Your task to perform on an android device: Search for custom wallets on Etsy. Image 0: 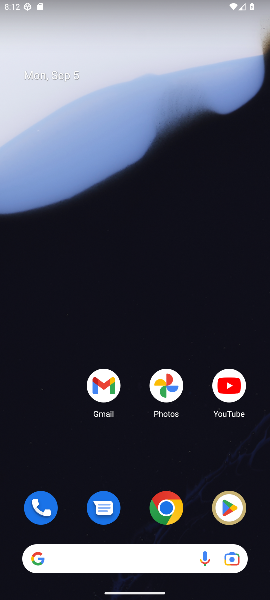
Step 0: click (165, 516)
Your task to perform on an android device: Search for custom wallets on Etsy. Image 1: 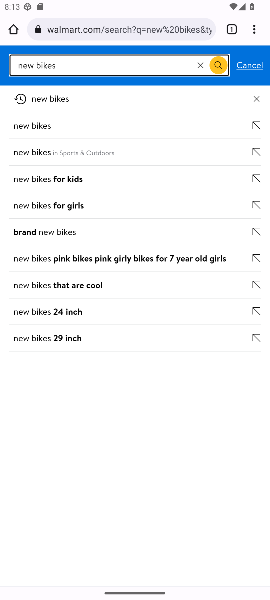
Step 1: click (96, 26)
Your task to perform on an android device: Search for custom wallets on Etsy. Image 2: 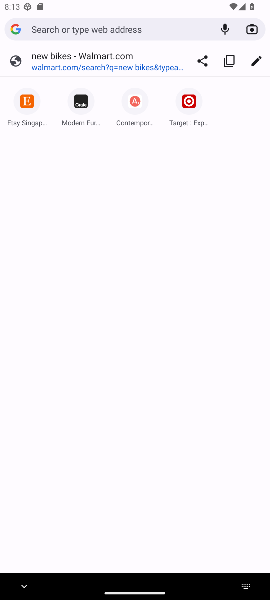
Step 2: type "etsy"
Your task to perform on an android device: Search for custom wallets on Etsy. Image 3: 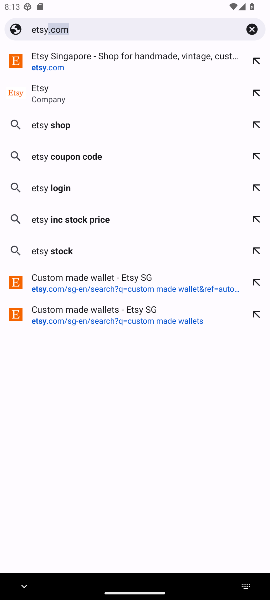
Step 3: click (38, 69)
Your task to perform on an android device: Search for custom wallets on Etsy. Image 4: 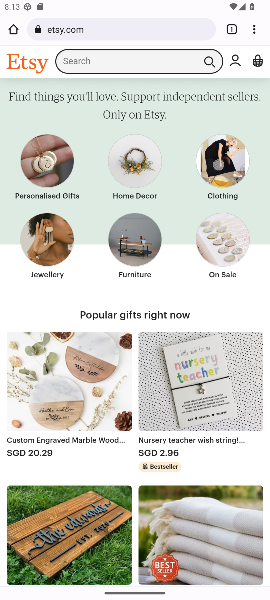
Step 4: click (156, 58)
Your task to perform on an android device: Search for custom wallets on Etsy. Image 5: 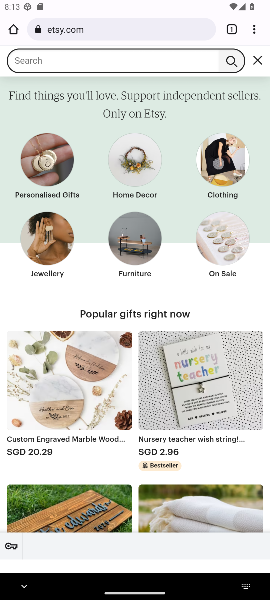
Step 5: type "custom wallets"
Your task to perform on an android device: Search for custom wallets on Etsy. Image 6: 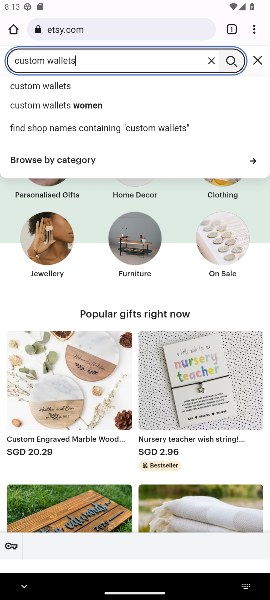
Step 6: click (44, 86)
Your task to perform on an android device: Search for custom wallets on Etsy. Image 7: 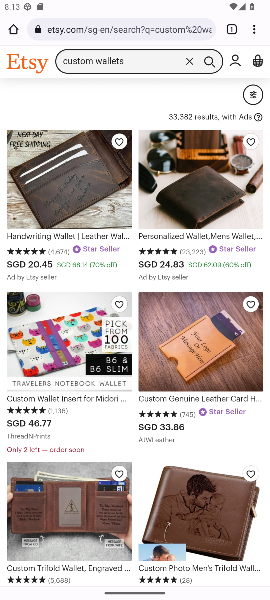
Step 7: task complete